Your task to perform on an android device: Go to Wikipedia Image 0: 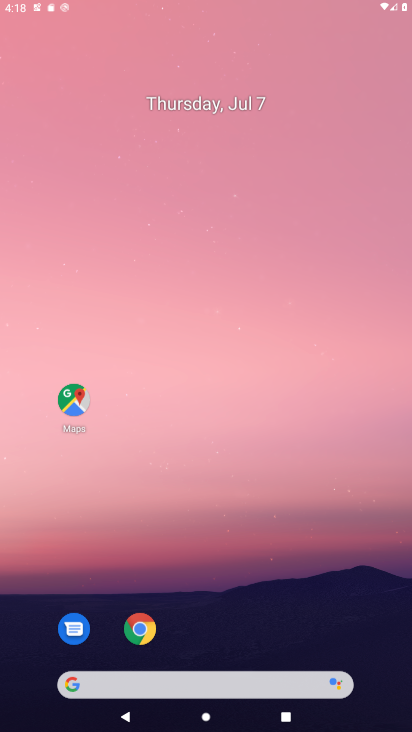
Step 0: click (294, 207)
Your task to perform on an android device: Go to Wikipedia Image 1: 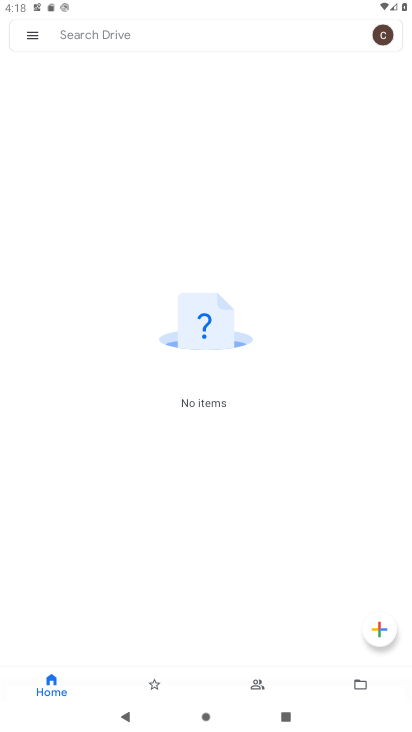
Step 1: press home button
Your task to perform on an android device: Go to Wikipedia Image 2: 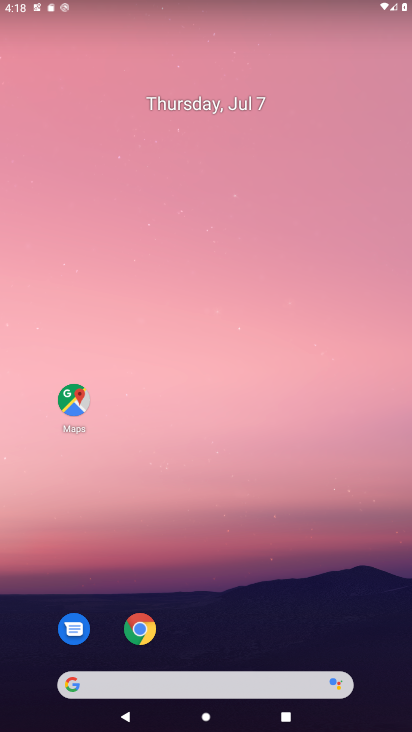
Step 2: click (146, 629)
Your task to perform on an android device: Go to Wikipedia Image 3: 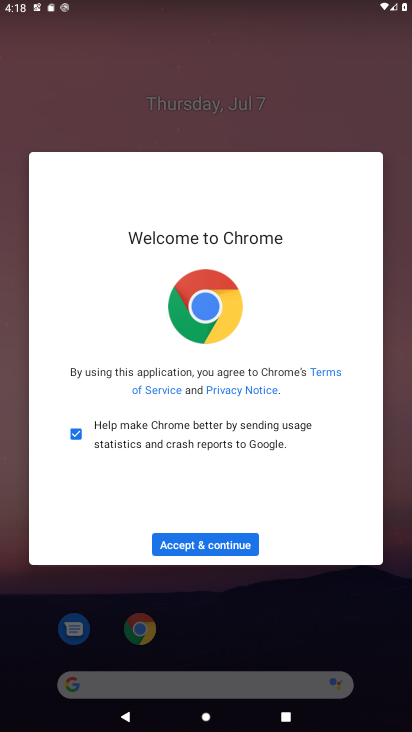
Step 3: click (234, 550)
Your task to perform on an android device: Go to Wikipedia Image 4: 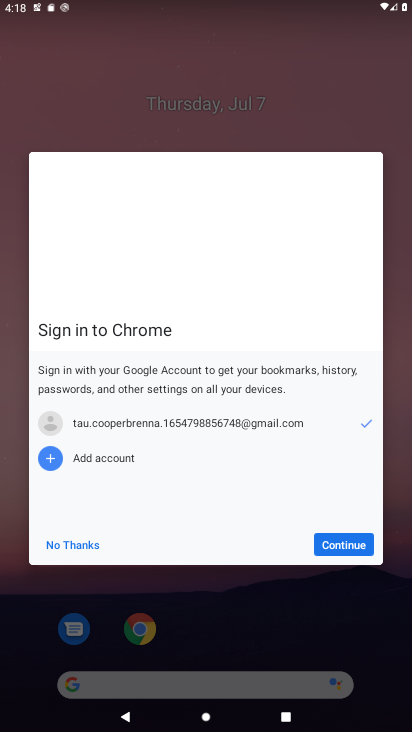
Step 4: click (342, 538)
Your task to perform on an android device: Go to Wikipedia Image 5: 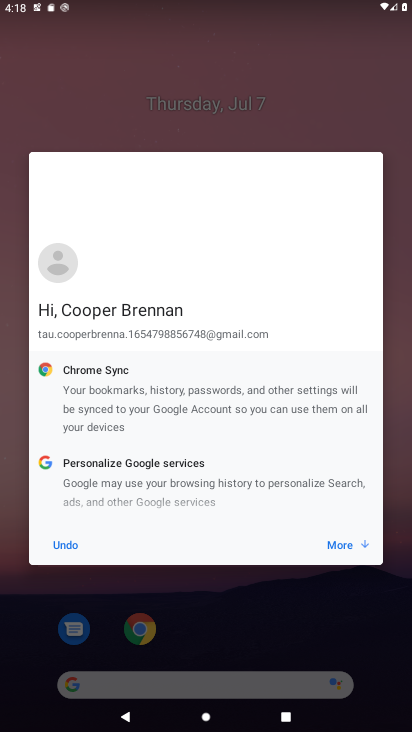
Step 5: click (339, 552)
Your task to perform on an android device: Go to Wikipedia Image 6: 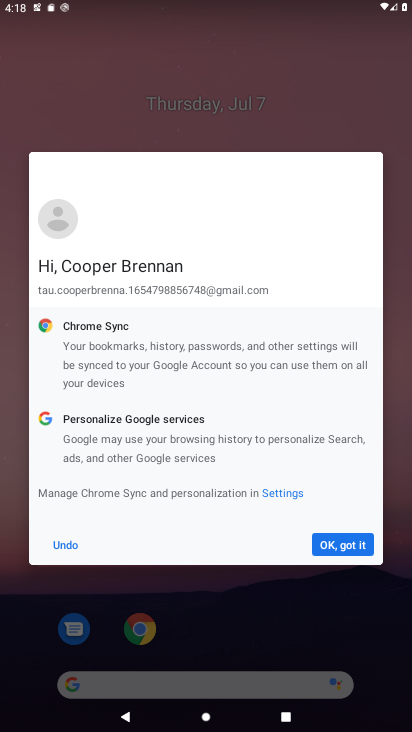
Step 6: click (308, 548)
Your task to perform on an android device: Go to Wikipedia Image 7: 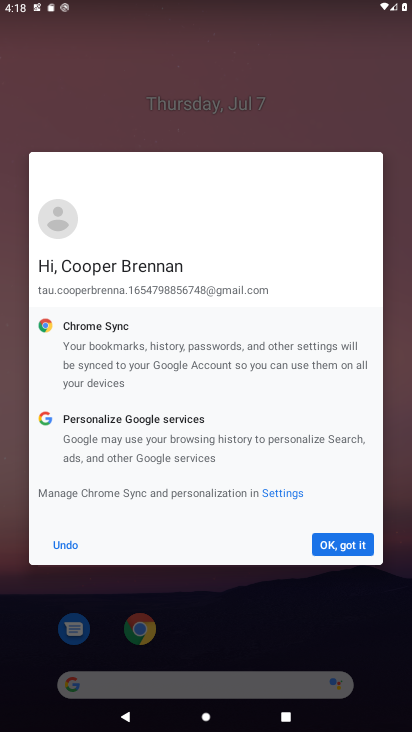
Step 7: click (319, 543)
Your task to perform on an android device: Go to Wikipedia Image 8: 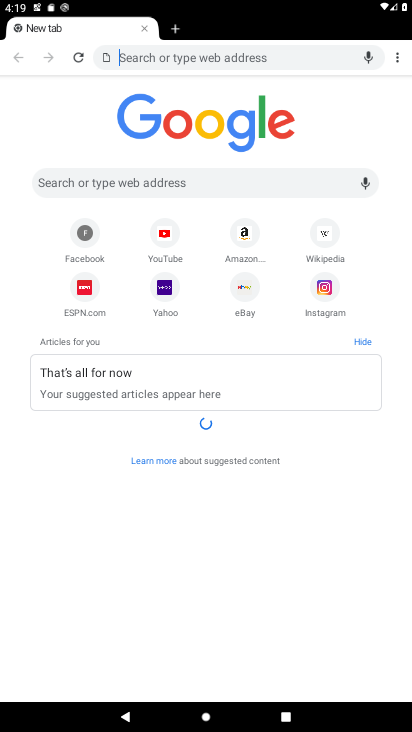
Step 8: click (331, 236)
Your task to perform on an android device: Go to Wikipedia Image 9: 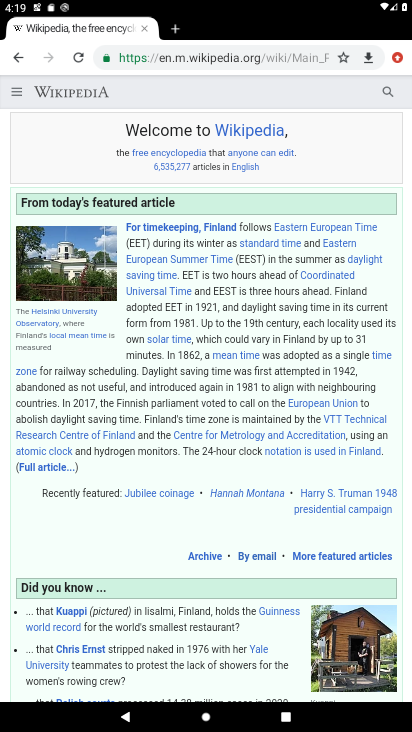
Step 9: task complete